Your task to perform on an android device: turn pop-ups on in chrome Image 0: 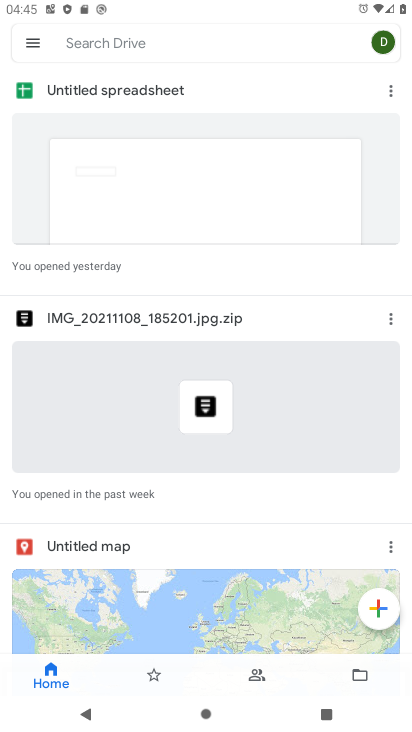
Step 0: press home button
Your task to perform on an android device: turn pop-ups on in chrome Image 1: 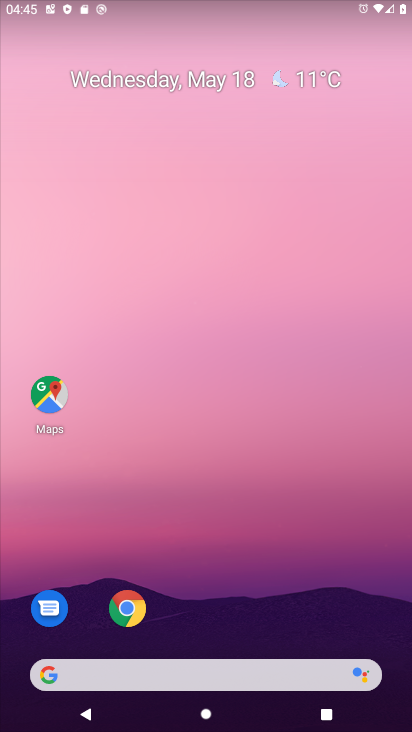
Step 1: click (122, 605)
Your task to perform on an android device: turn pop-ups on in chrome Image 2: 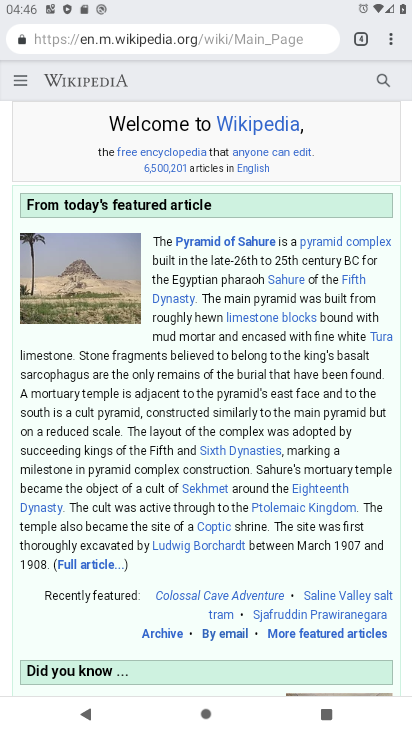
Step 2: click (392, 32)
Your task to perform on an android device: turn pop-ups on in chrome Image 3: 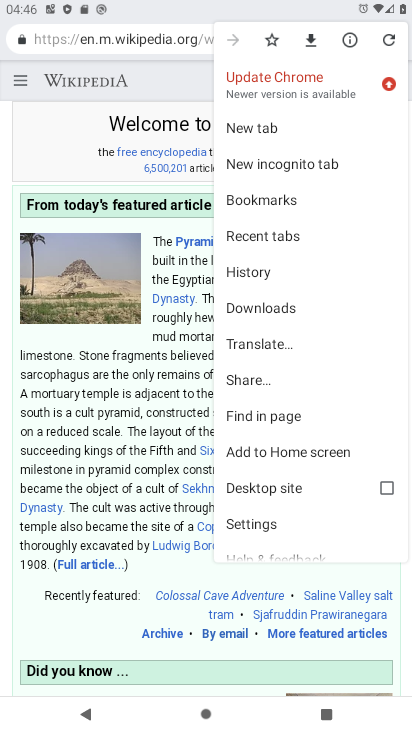
Step 3: click (276, 525)
Your task to perform on an android device: turn pop-ups on in chrome Image 4: 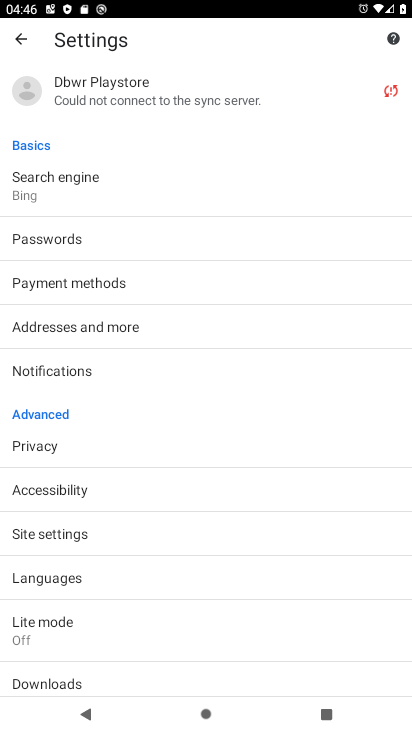
Step 4: click (153, 531)
Your task to perform on an android device: turn pop-ups on in chrome Image 5: 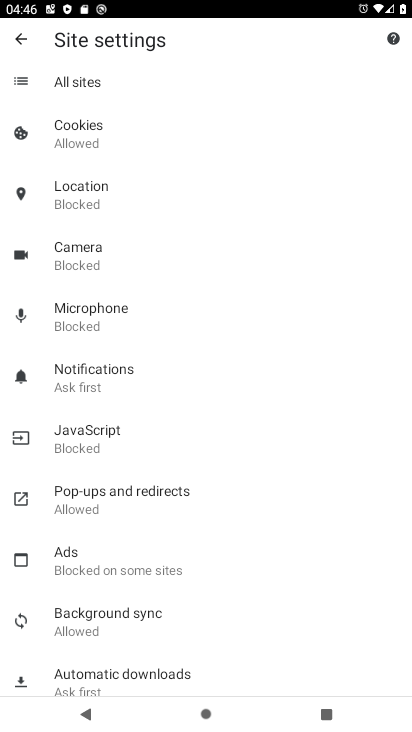
Step 5: click (98, 507)
Your task to perform on an android device: turn pop-ups on in chrome Image 6: 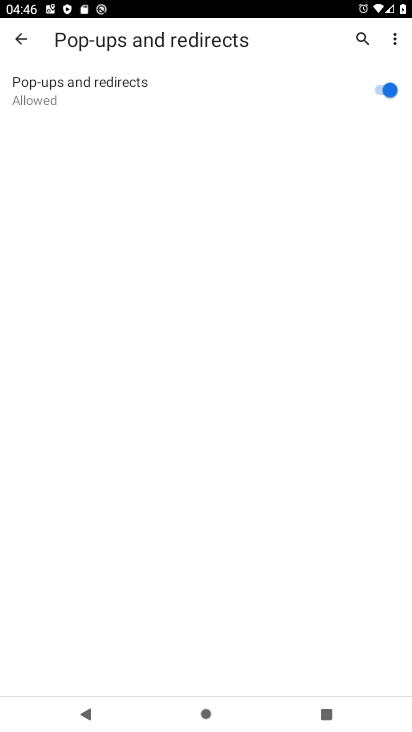
Step 6: task complete